Your task to perform on an android device: Search for seafood restaurants on Google Maps Image 0: 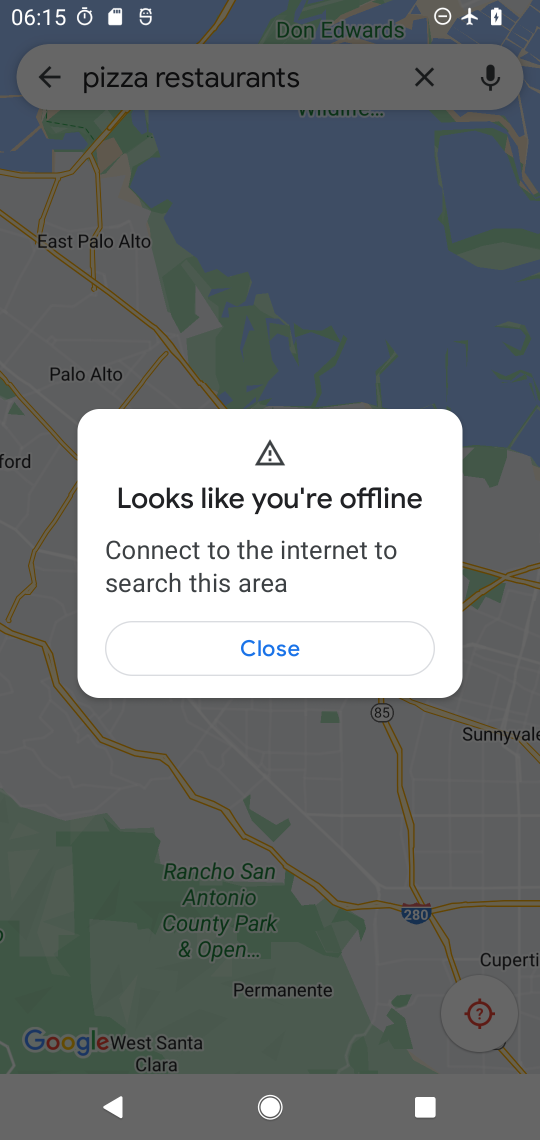
Step 0: click (419, 80)
Your task to perform on an android device: Search for seafood restaurants on Google Maps Image 1: 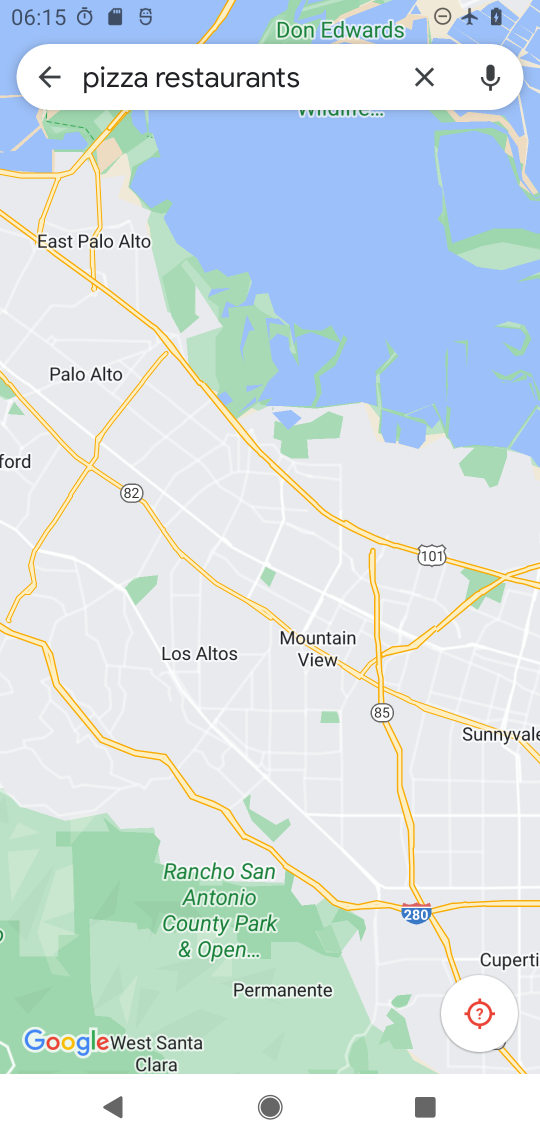
Step 1: click (363, 661)
Your task to perform on an android device: Search for seafood restaurants on Google Maps Image 2: 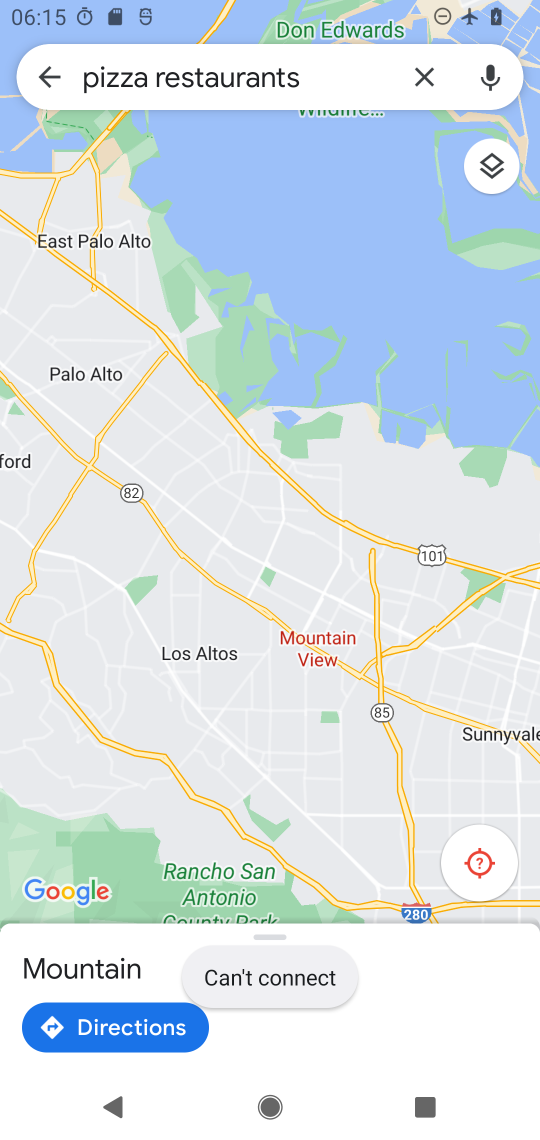
Step 2: click (422, 79)
Your task to perform on an android device: Search for seafood restaurants on Google Maps Image 3: 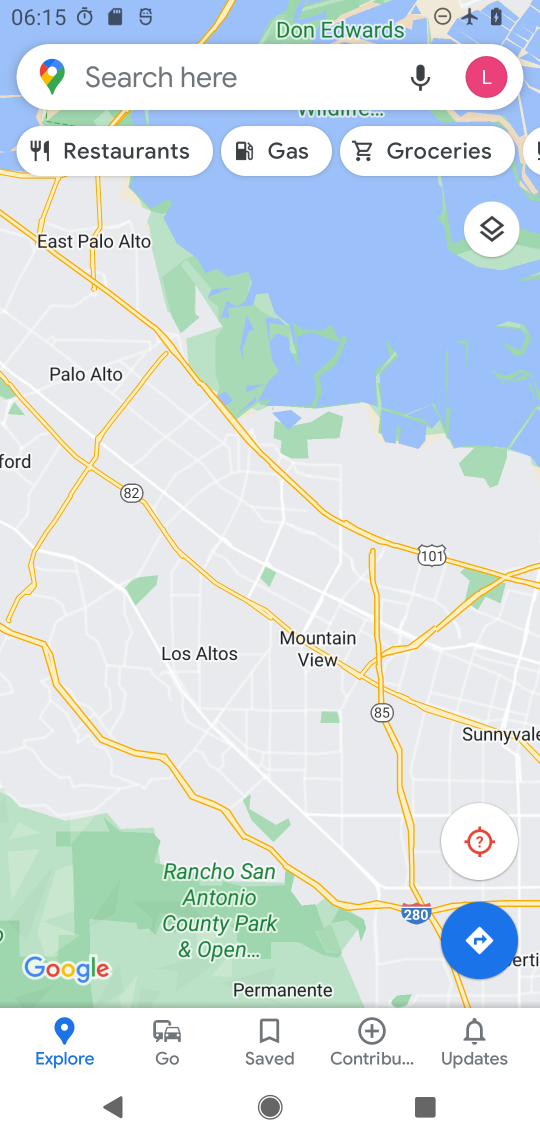
Step 3: click (205, 53)
Your task to perform on an android device: Search for seafood restaurants on Google Maps Image 4: 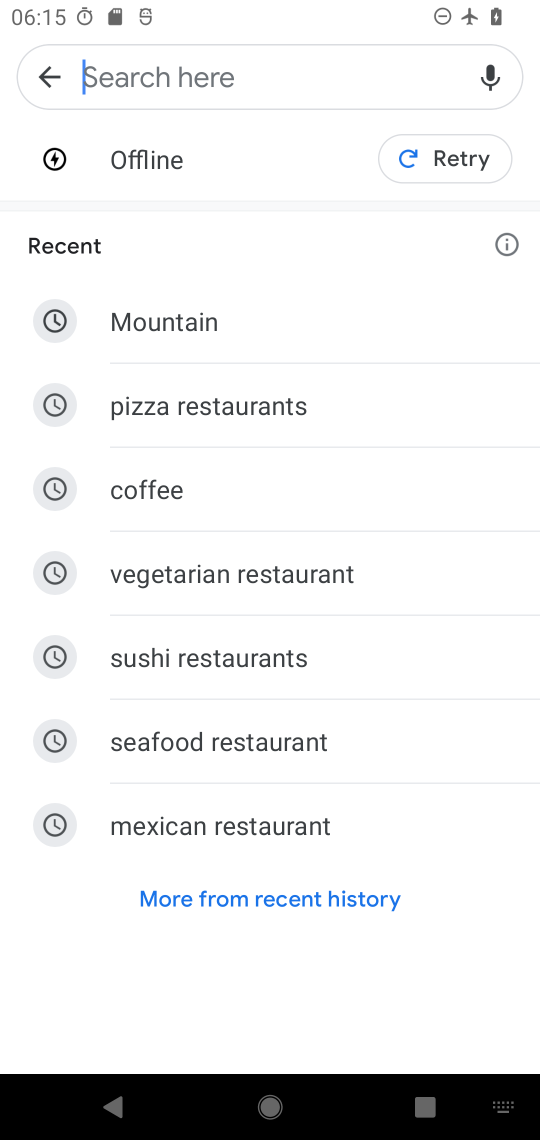
Step 4: click (255, 747)
Your task to perform on an android device: Search for seafood restaurants on Google Maps Image 5: 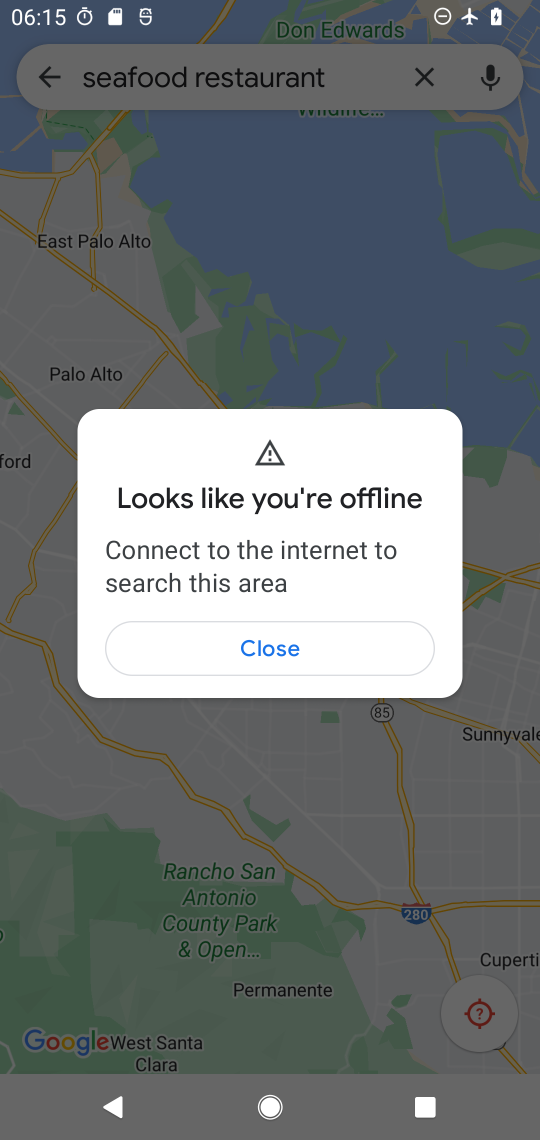
Step 5: click (280, 623)
Your task to perform on an android device: Search for seafood restaurants on Google Maps Image 6: 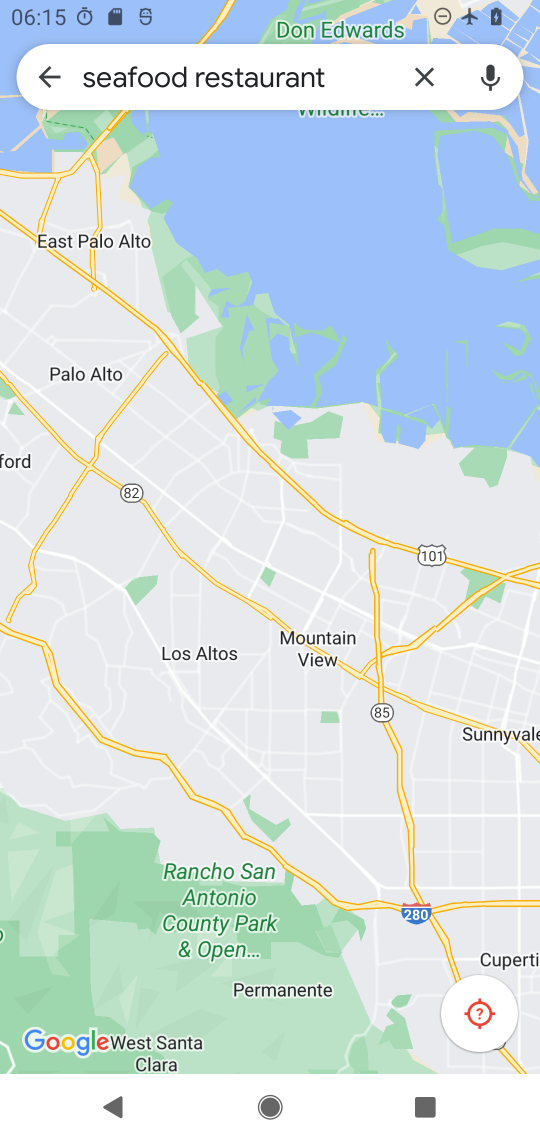
Step 6: task complete